Your task to perform on an android device: turn on wifi Image 0: 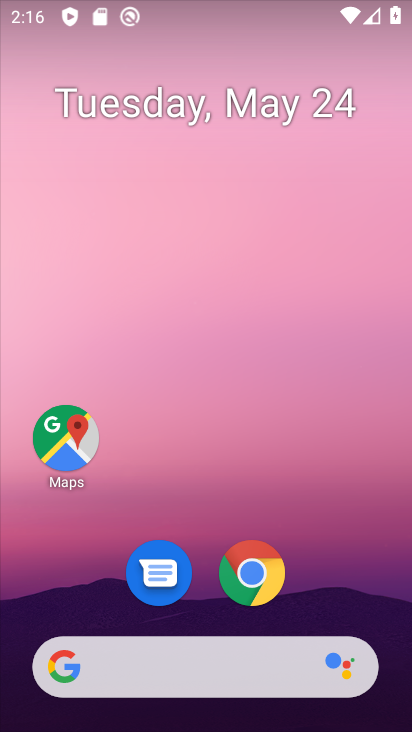
Step 0: drag from (316, 500) to (232, 4)
Your task to perform on an android device: turn on wifi Image 1: 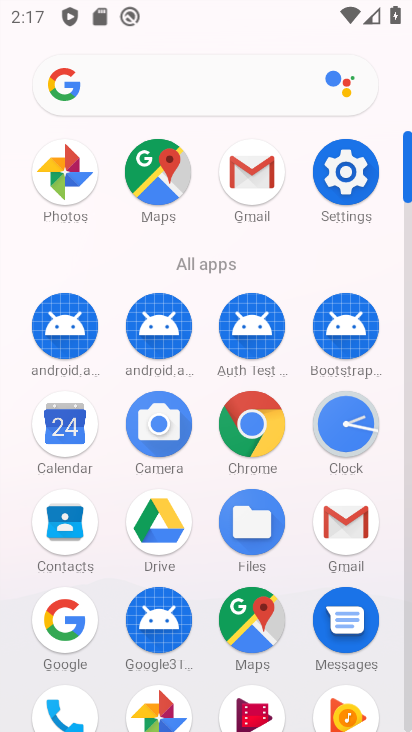
Step 1: drag from (15, 550) to (24, 264)
Your task to perform on an android device: turn on wifi Image 2: 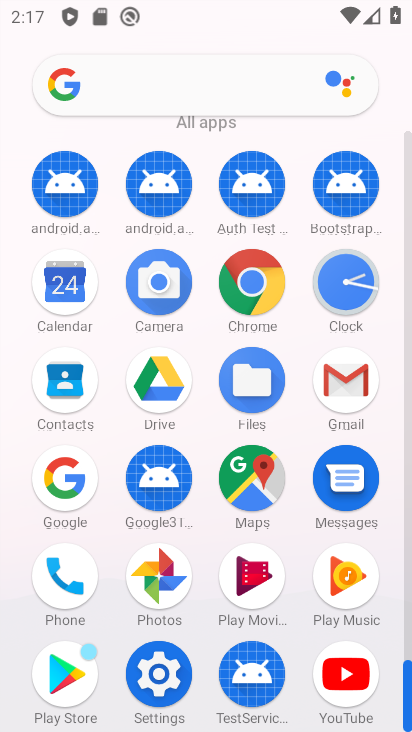
Step 2: click (161, 670)
Your task to perform on an android device: turn on wifi Image 3: 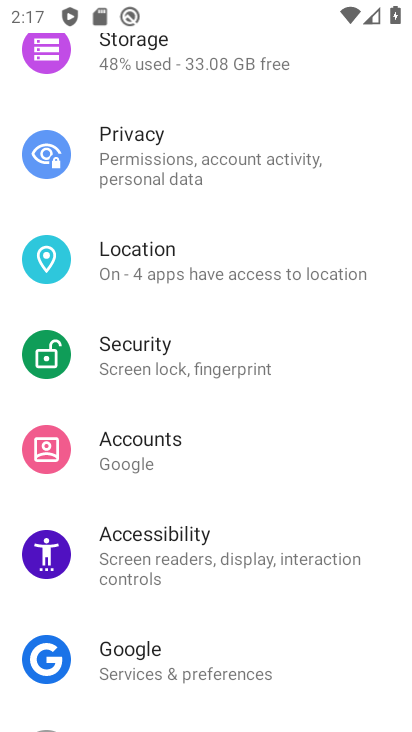
Step 3: drag from (246, 168) to (233, 657)
Your task to perform on an android device: turn on wifi Image 4: 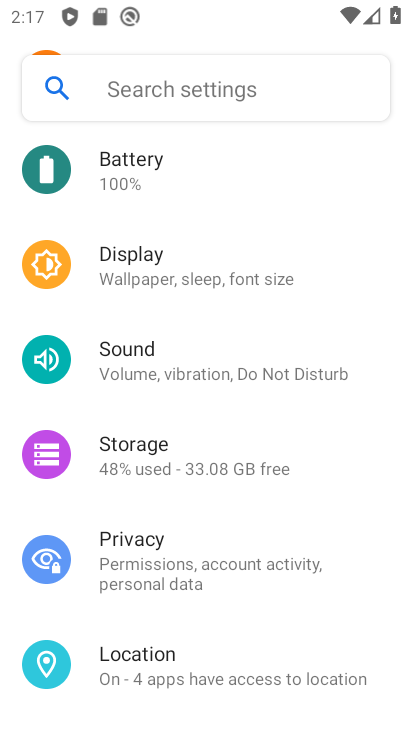
Step 4: drag from (206, 180) to (203, 616)
Your task to perform on an android device: turn on wifi Image 5: 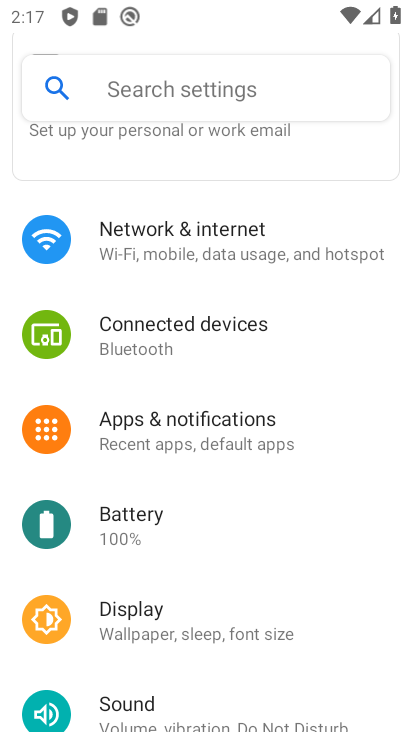
Step 5: click (180, 247)
Your task to perform on an android device: turn on wifi Image 6: 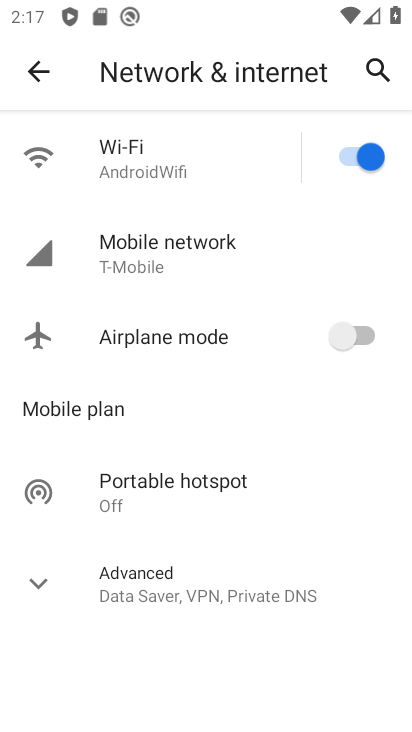
Step 6: task complete